Your task to perform on an android device: toggle wifi Image 0: 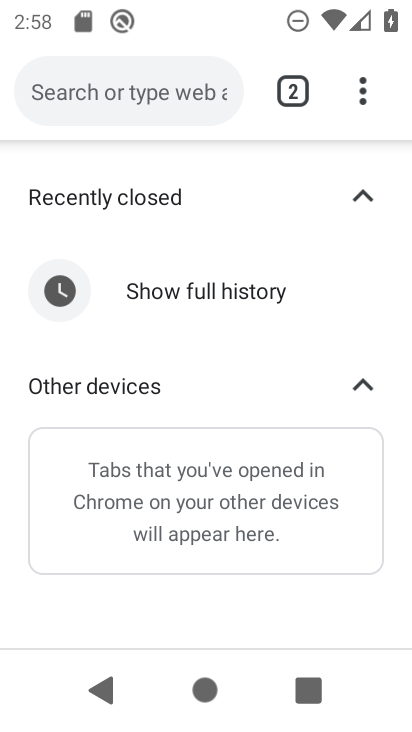
Step 0: press home button
Your task to perform on an android device: toggle wifi Image 1: 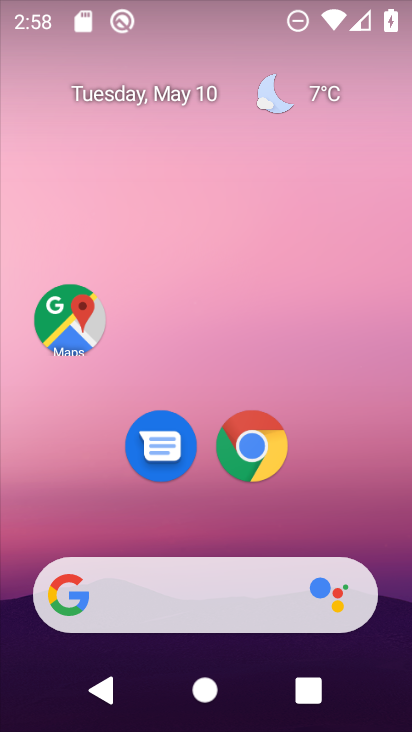
Step 1: drag from (330, 434) to (238, 43)
Your task to perform on an android device: toggle wifi Image 2: 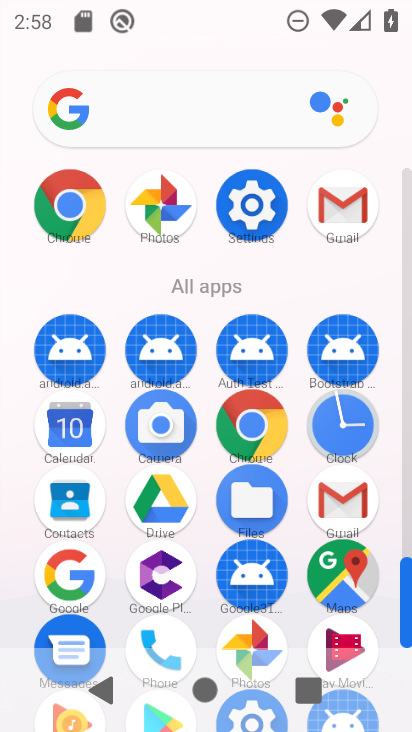
Step 2: click (257, 204)
Your task to perform on an android device: toggle wifi Image 3: 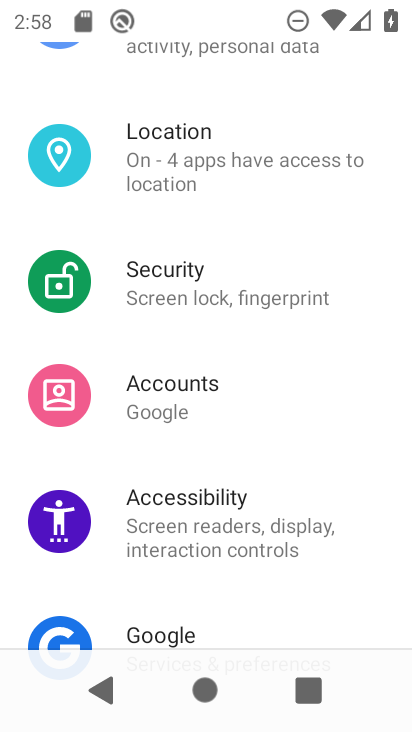
Step 3: drag from (242, 131) to (242, 544)
Your task to perform on an android device: toggle wifi Image 4: 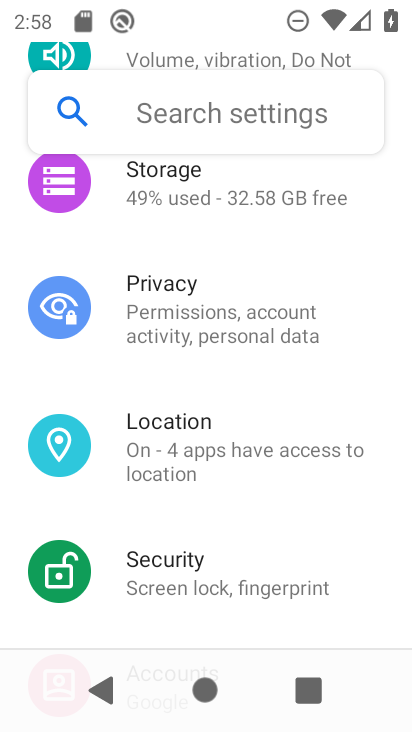
Step 4: drag from (215, 220) to (191, 589)
Your task to perform on an android device: toggle wifi Image 5: 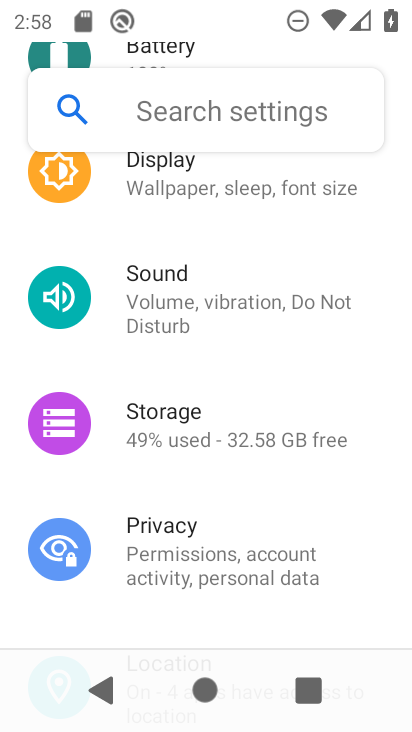
Step 5: drag from (236, 224) to (170, 671)
Your task to perform on an android device: toggle wifi Image 6: 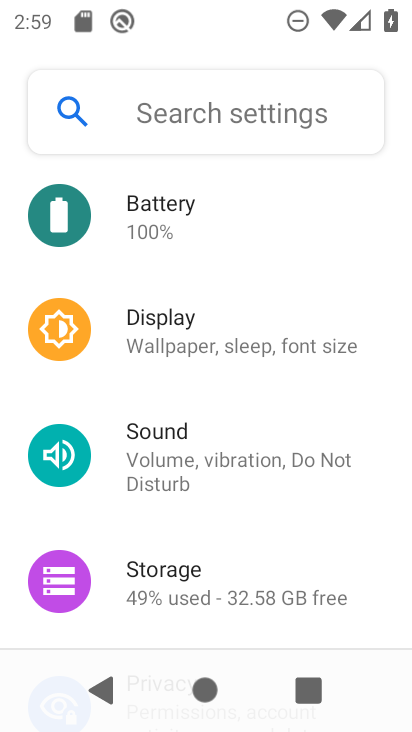
Step 6: drag from (214, 222) to (217, 537)
Your task to perform on an android device: toggle wifi Image 7: 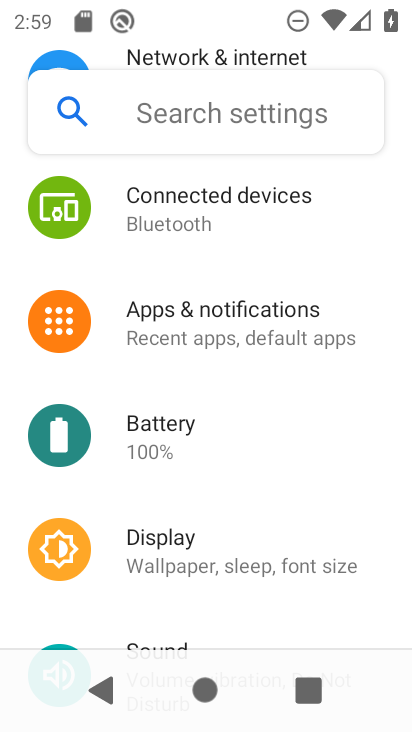
Step 7: drag from (227, 181) to (220, 527)
Your task to perform on an android device: toggle wifi Image 8: 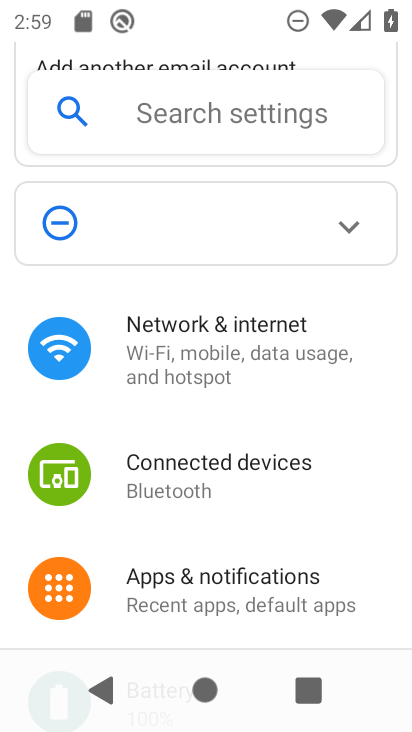
Step 8: click (155, 339)
Your task to perform on an android device: toggle wifi Image 9: 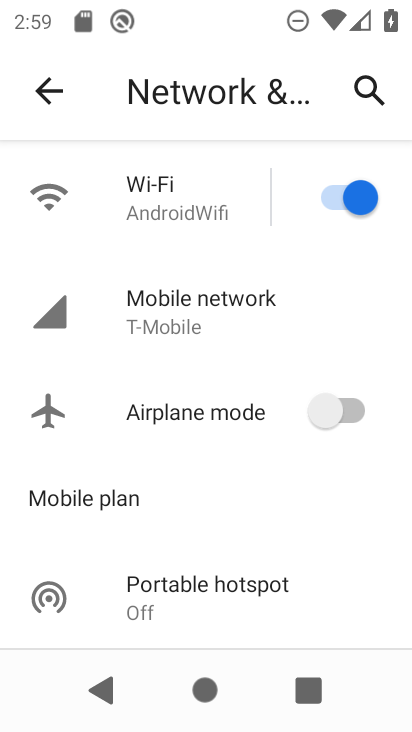
Step 9: click (345, 194)
Your task to perform on an android device: toggle wifi Image 10: 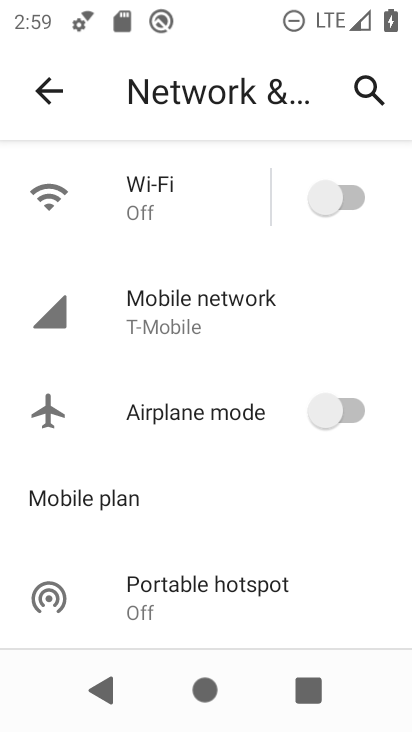
Step 10: task complete